Your task to perform on an android device: Open battery settings Image 0: 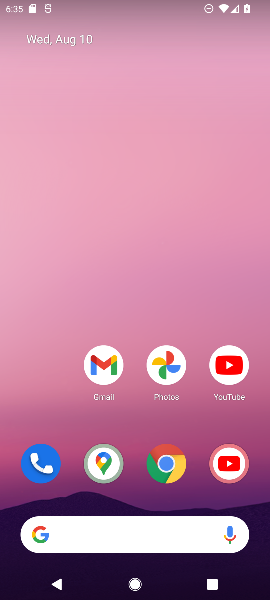
Step 0: drag from (127, 490) to (105, 146)
Your task to perform on an android device: Open battery settings Image 1: 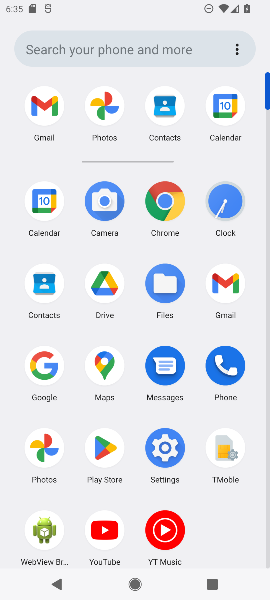
Step 1: click (158, 444)
Your task to perform on an android device: Open battery settings Image 2: 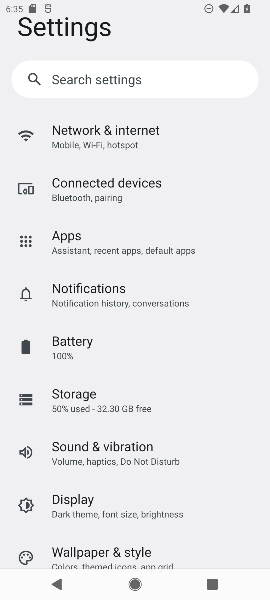
Step 2: click (80, 341)
Your task to perform on an android device: Open battery settings Image 3: 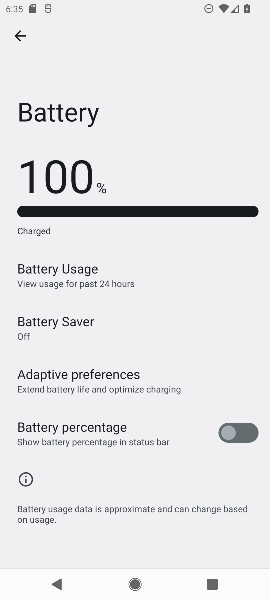
Step 3: task complete